Your task to perform on an android device: allow cookies in the chrome app Image 0: 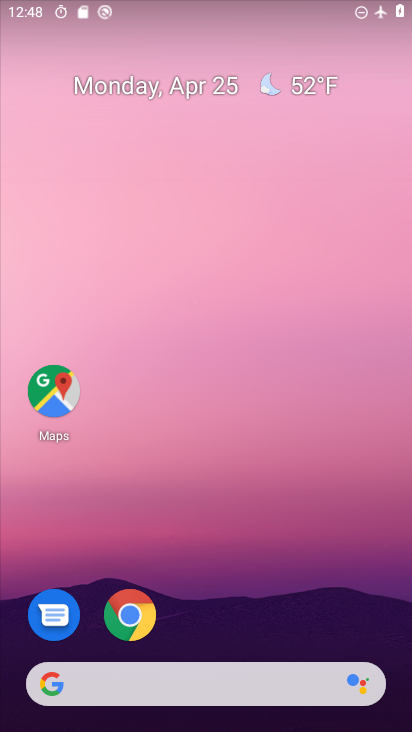
Step 0: drag from (216, 652) to (194, 9)
Your task to perform on an android device: allow cookies in the chrome app Image 1: 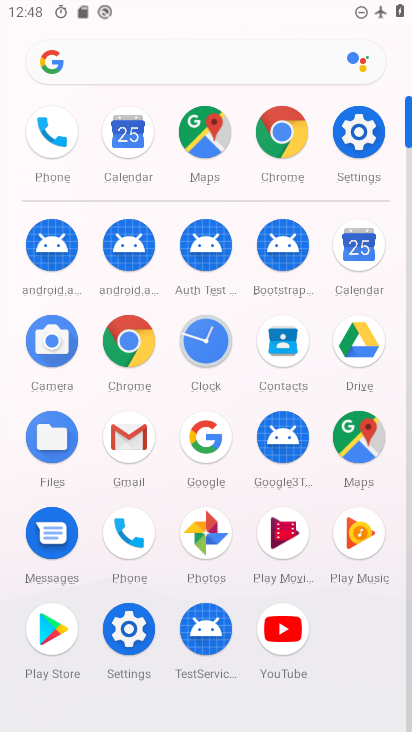
Step 1: click (134, 332)
Your task to perform on an android device: allow cookies in the chrome app Image 2: 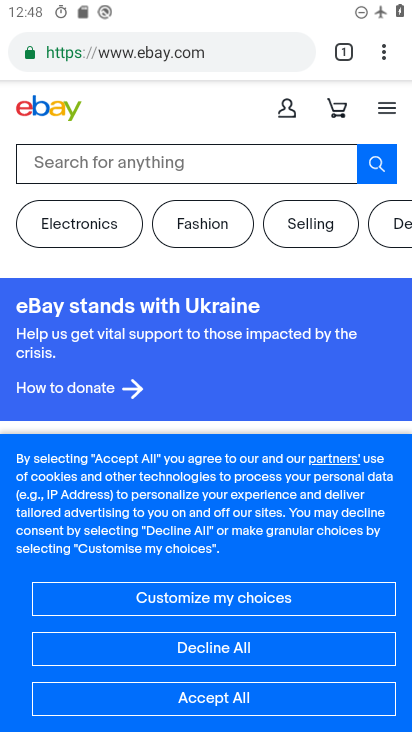
Step 2: drag from (382, 54) to (209, 631)
Your task to perform on an android device: allow cookies in the chrome app Image 3: 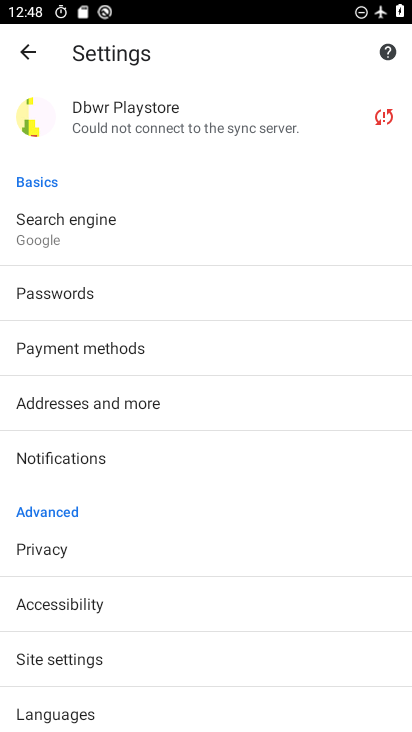
Step 3: drag from (204, 586) to (203, 222)
Your task to perform on an android device: allow cookies in the chrome app Image 4: 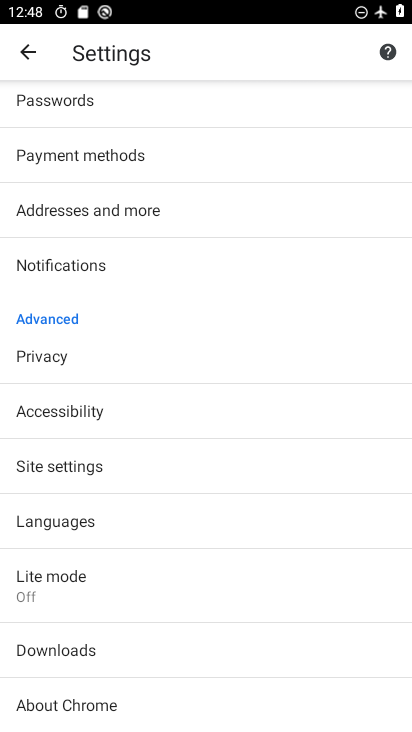
Step 4: click (96, 468)
Your task to perform on an android device: allow cookies in the chrome app Image 5: 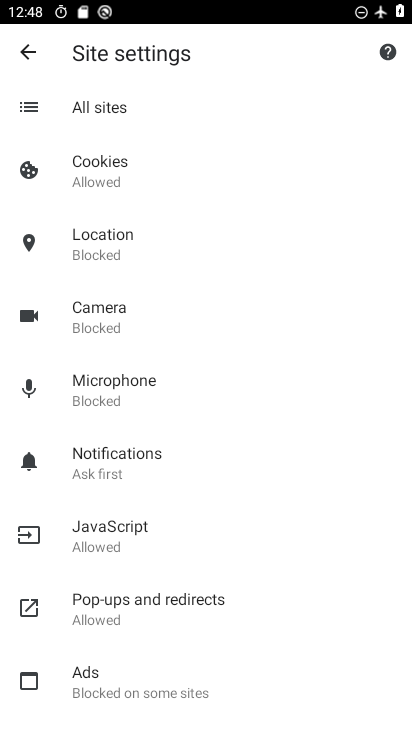
Step 5: click (134, 159)
Your task to perform on an android device: allow cookies in the chrome app Image 6: 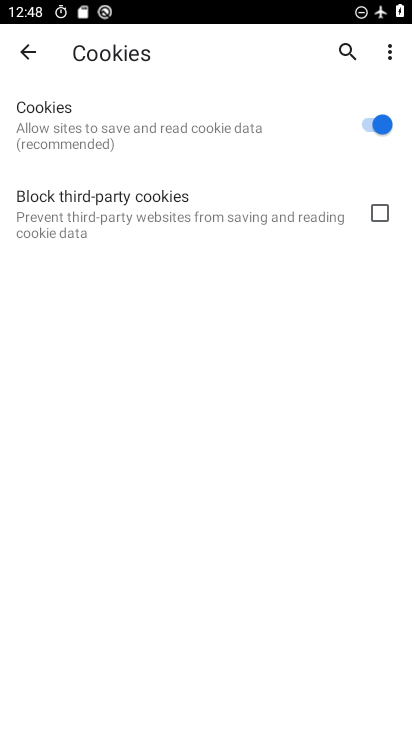
Step 6: task complete